Your task to perform on an android device: turn on airplane mode Image 0: 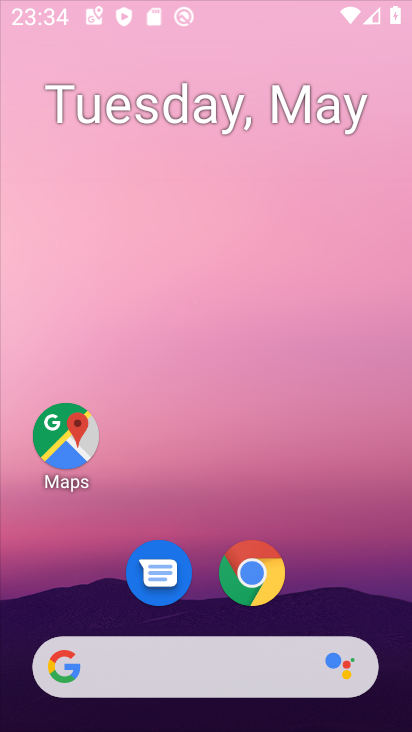
Step 0: drag from (327, 388) to (322, 254)
Your task to perform on an android device: turn on airplane mode Image 1: 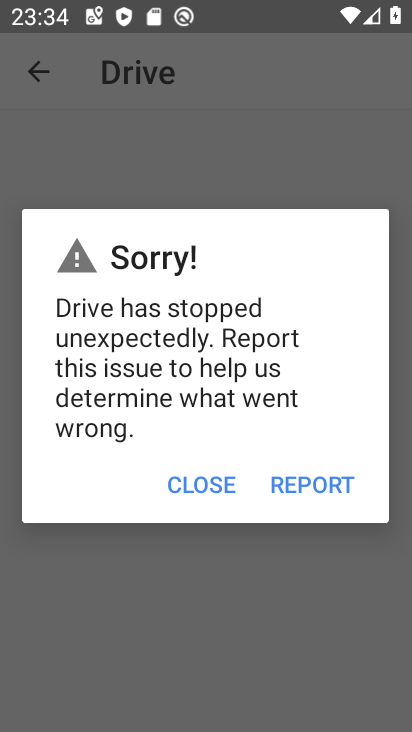
Step 1: press home button
Your task to perform on an android device: turn on airplane mode Image 2: 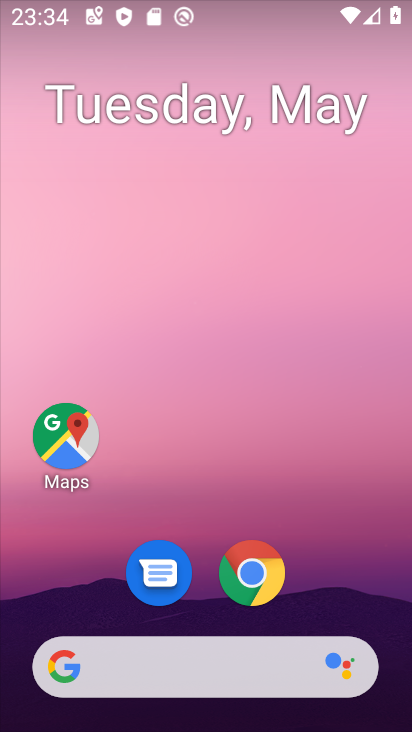
Step 2: drag from (108, 583) to (158, 229)
Your task to perform on an android device: turn on airplane mode Image 3: 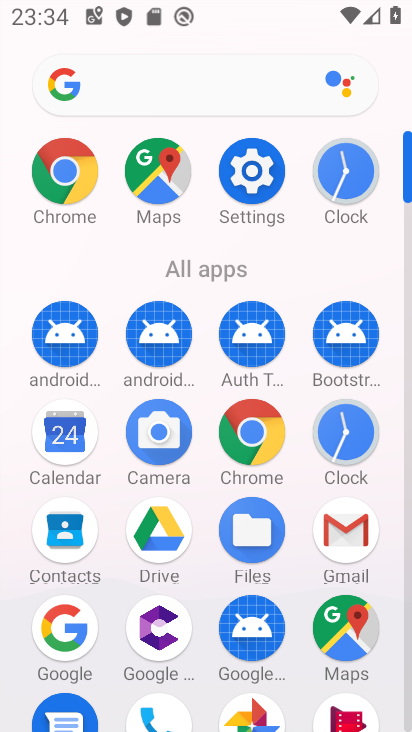
Step 3: click (244, 161)
Your task to perform on an android device: turn on airplane mode Image 4: 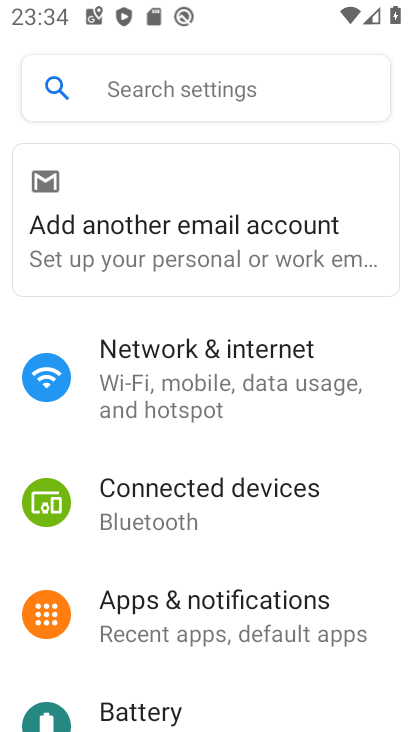
Step 4: click (253, 383)
Your task to perform on an android device: turn on airplane mode Image 5: 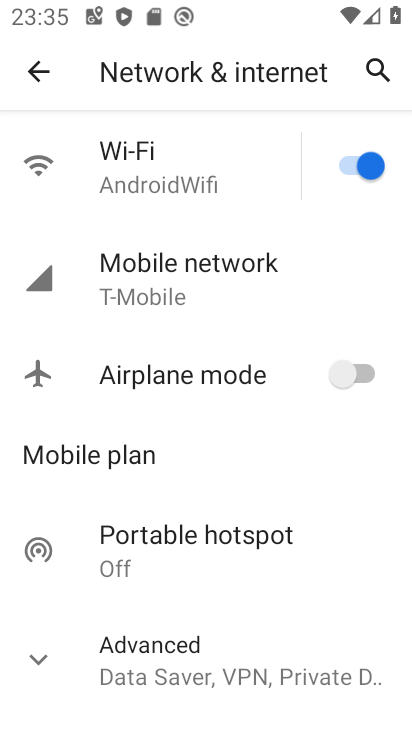
Step 5: click (359, 368)
Your task to perform on an android device: turn on airplane mode Image 6: 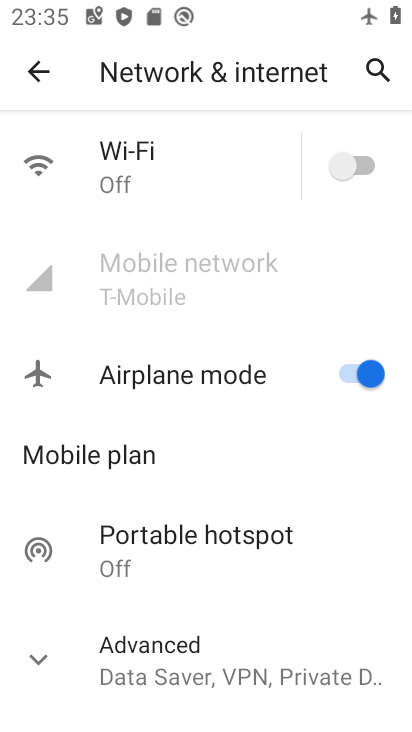
Step 6: task complete